Your task to perform on an android device: Open the web browser Image 0: 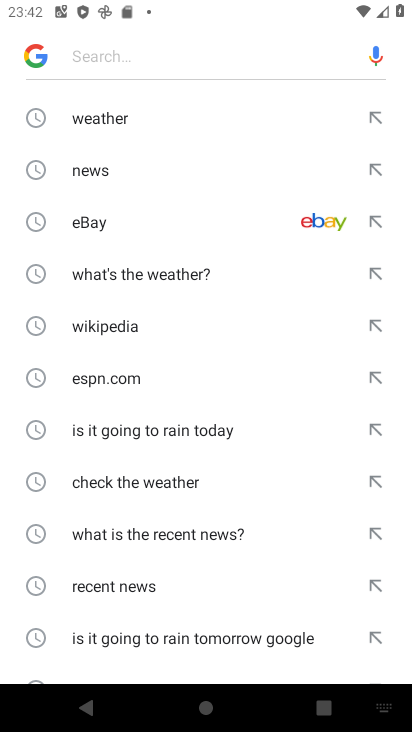
Step 0: task complete